Your task to perform on an android device: Open Android settings Image 0: 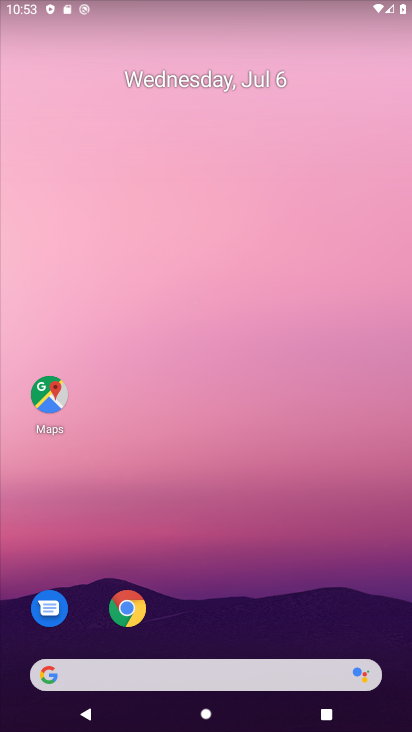
Step 0: drag from (204, 655) to (137, 134)
Your task to perform on an android device: Open Android settings Image 1: 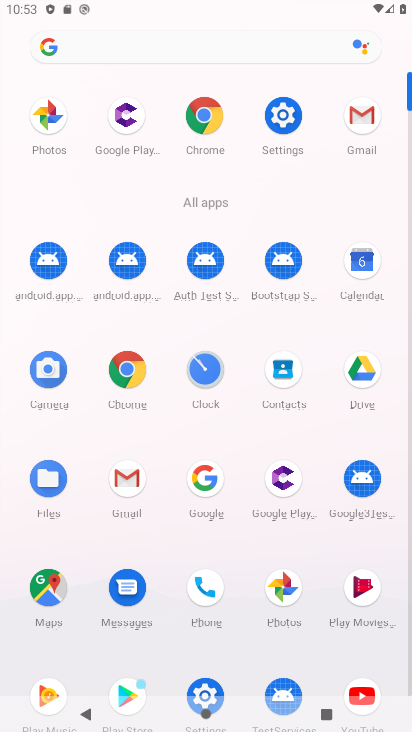
Step 1: click (282, 127)
Your task to perform on an android device: Open Android settings Image 2: 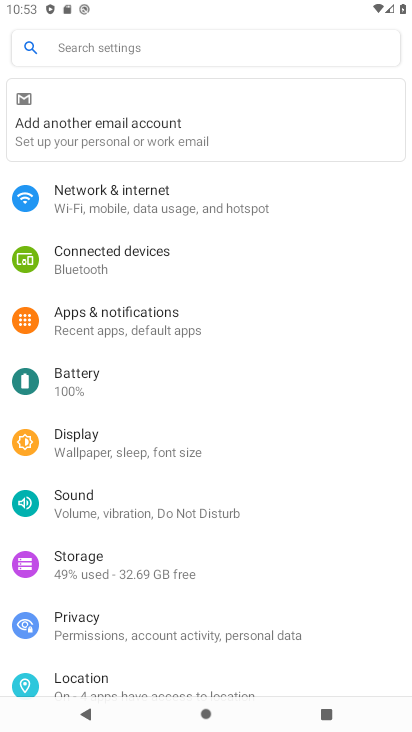
Step 2: drag from (193, 572) to (150, 5)
Your task to perform on an android device: Open Android settings Image 3: 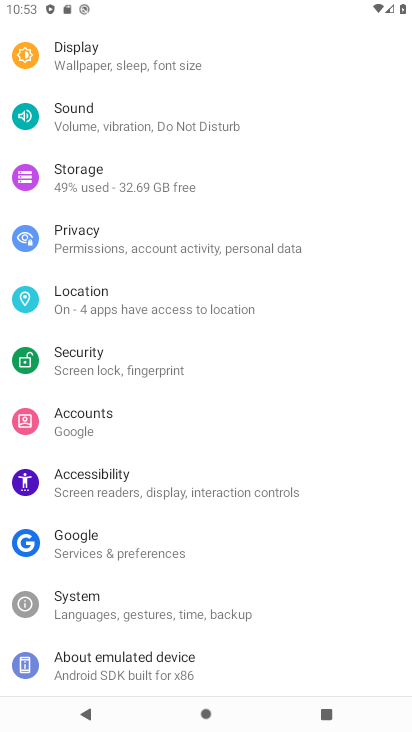
Step 3: click (46, 655)
Your task to perform on an android device: Open Android settings Image 4: 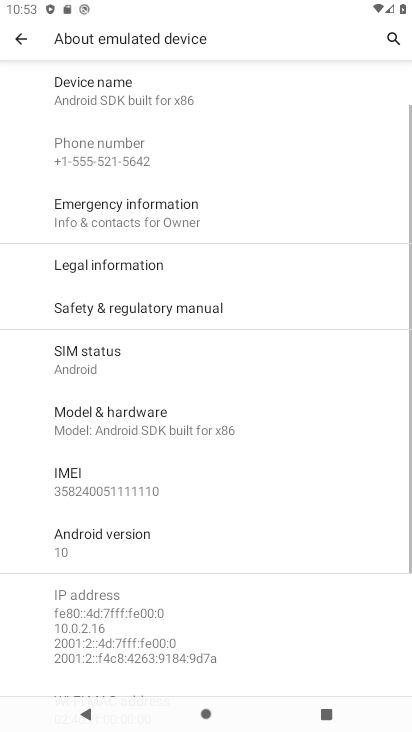
Step 4: click (105, 523)
Your task to perform on an android device: Open Android settings Image 5: 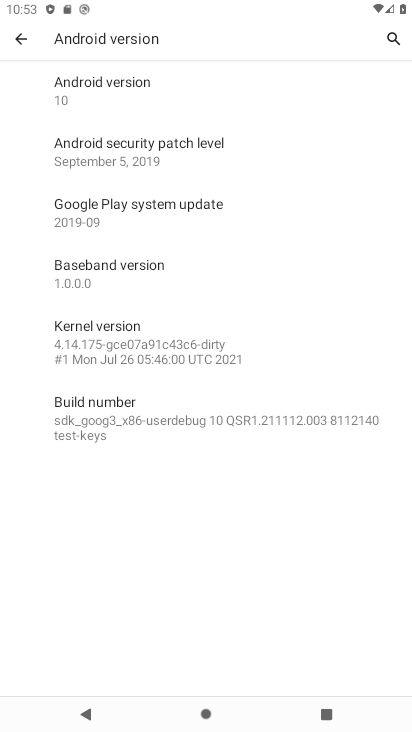
Step 5: click (95, 77)
Your task to perform on an android device: Open Android settings Image 6: 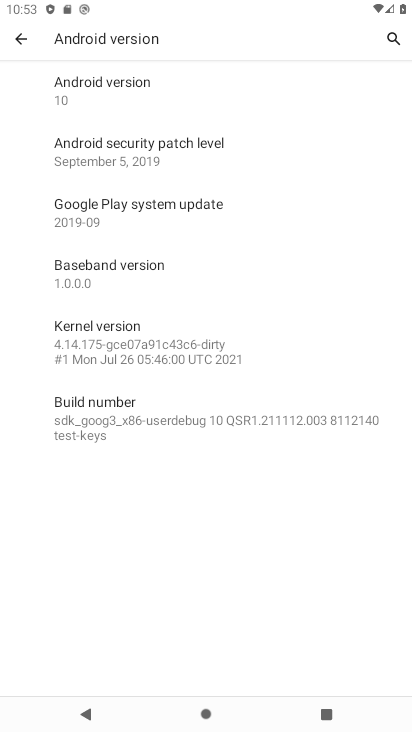
Step 6: task complete